Your task to perform on an android device: Go to Android settings Image 0: 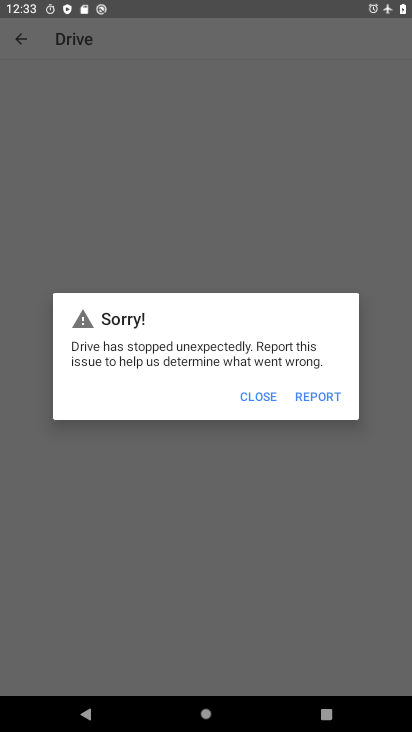
Step 0: press home button
Your task to perform on an android device: Go to Android settings Image 1: 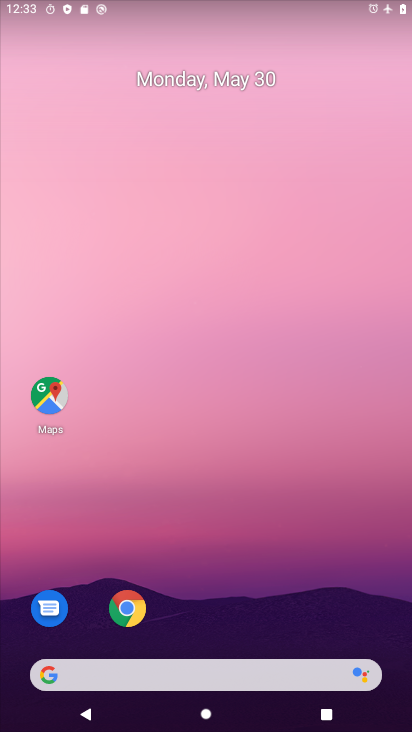
Step 1: drag from (192, 638) to (97, 25)
Your task to perform on an android device: Go to Android settings Image 2: 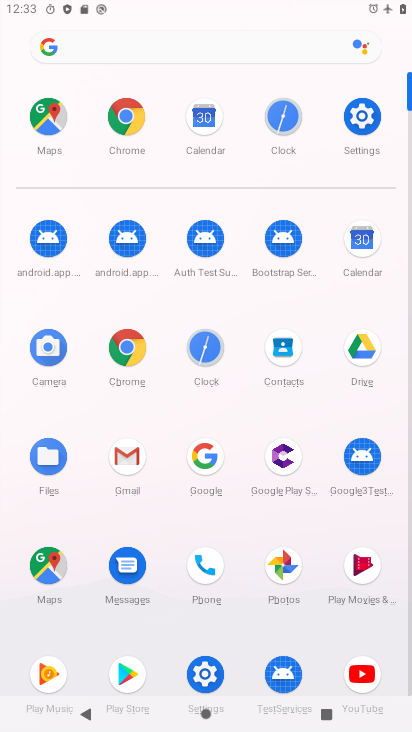
Step 2: click (344, 130)
Your task to perform on an android device: Go to Android settings Image 3: 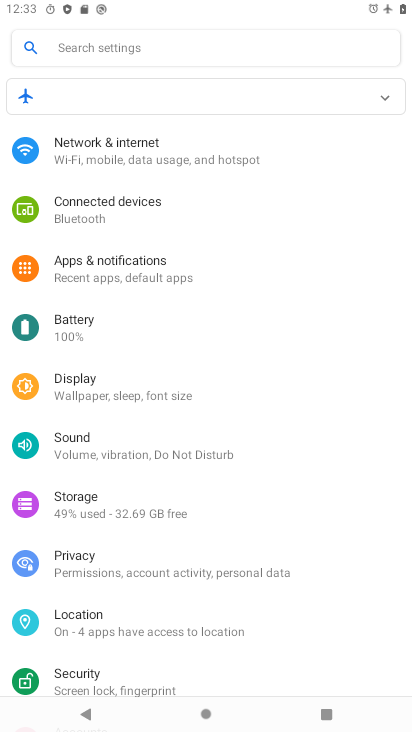
Step 3: task complete